Your task to perform on an android device: turn off notifications settings in the gmail app Image 0: 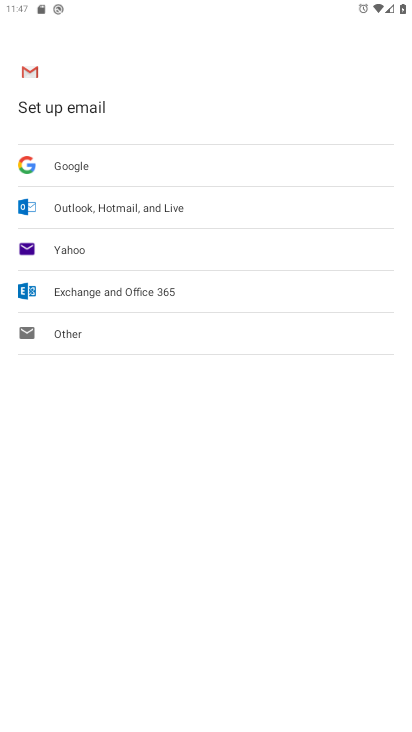
Step 0: press home button
Your task to perform on an android device: turn off notifications settings in the gmail app Image 1: 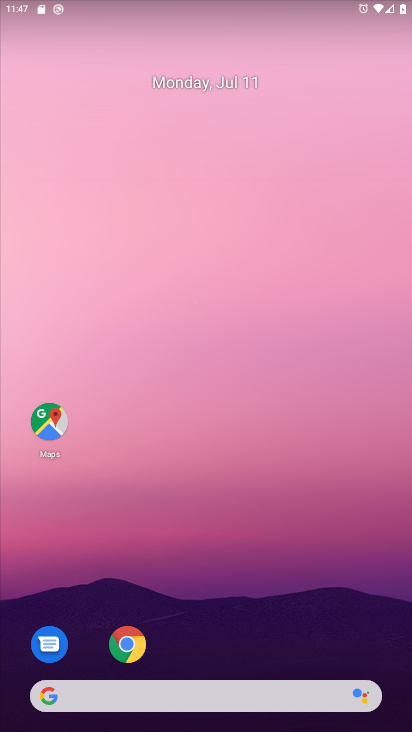
Step 1: drag from (203, 610) to (305, 2)
Your task to perform on an android device: turn off notifications settings in the gmail app Image 2: 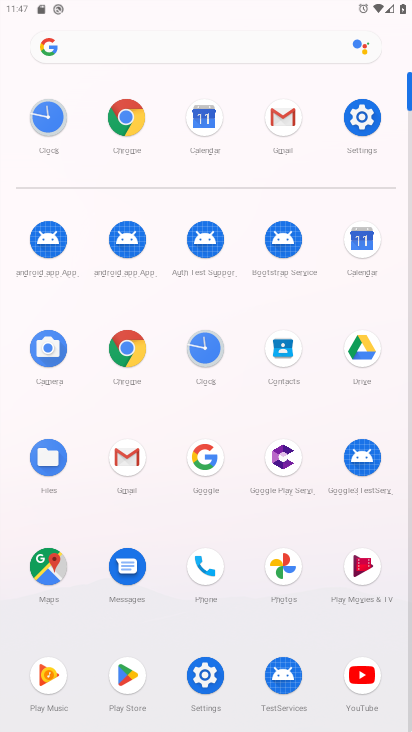
Step 2: click (287, 122)
Your task to perform on an android device: turn off notifications settings in the gmail app Image 3: 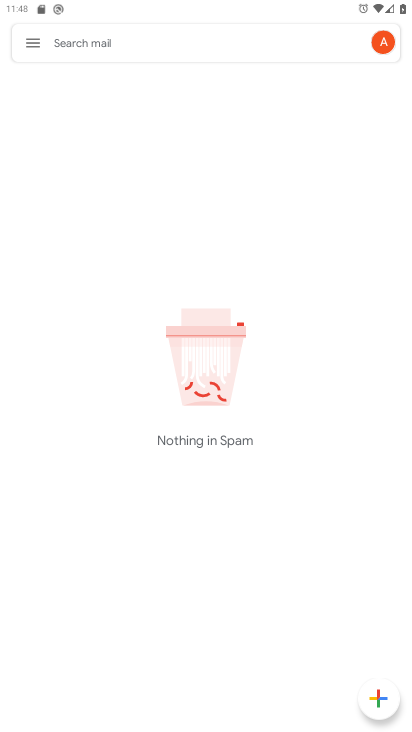
Step 3: click (37, 42)
Your task to perform on an android device: turn off notifications settings in the gmail app Image 4: 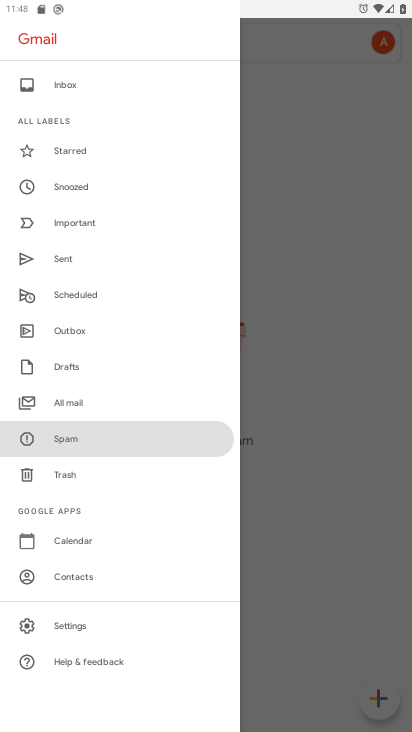
Step 4: click (87, 619)
Your task to perform on an android device: turn off notifications settings in the gmail app Image 5: 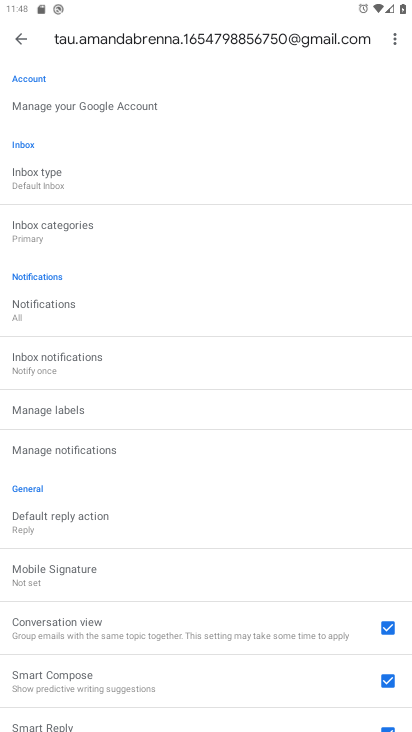
Step 5: click (92, 442)
Your task to perform on an android device: turn off notifications settings in the gmail app Image 6: 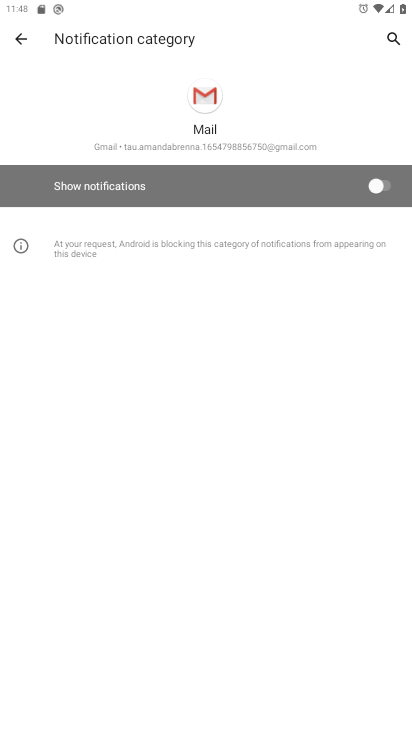
Step 6: task complete